Your task to perform on an android device: Go to CNN.com Image 0: 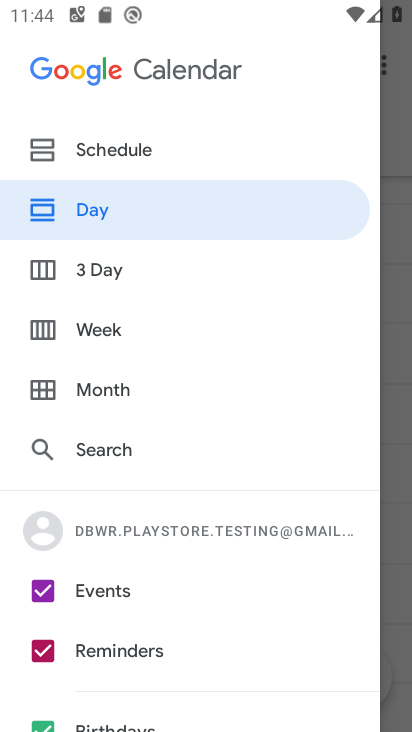
Step 0: press home button
Your task to perform on an android device: Go to CNN.com Image 1: 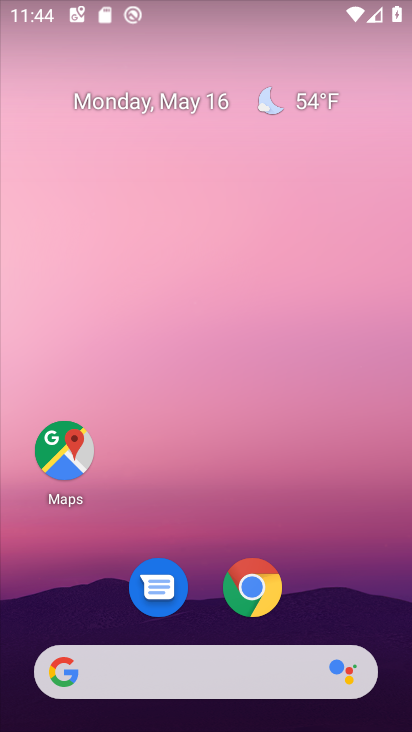
Step 1: click (251, 576)
Your task to perform on an android device: Go to CNN.com Image 2: 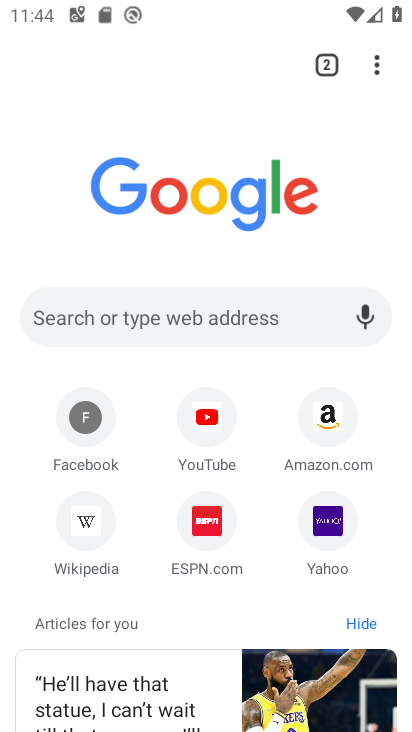
Step 2: click (192, 336)
Your task to perform on an android device: Go to CNN.com Image 3: 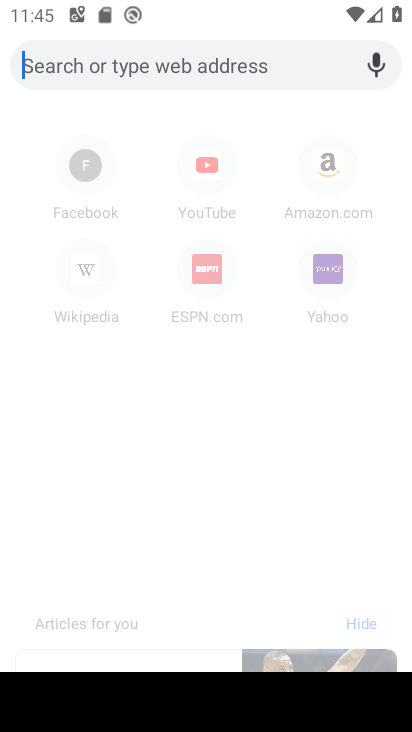
Step 3: type "CNN.com"
Your task to perform on an android device: Go to CNN.com Image 4: 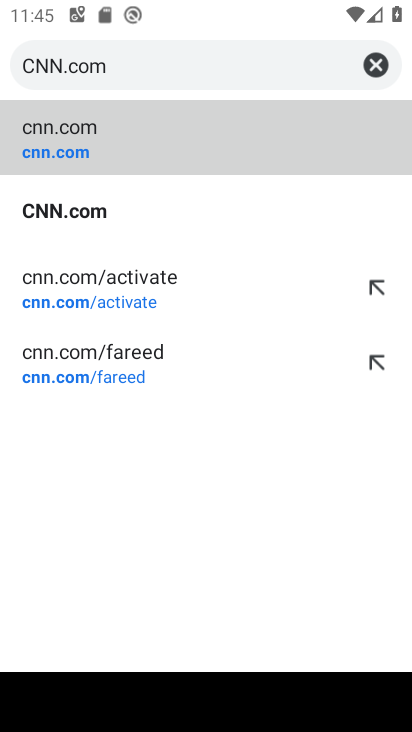
Step 4: click (174, 216)
Your task to perform on an android device: Go to CNN.com Image 5: 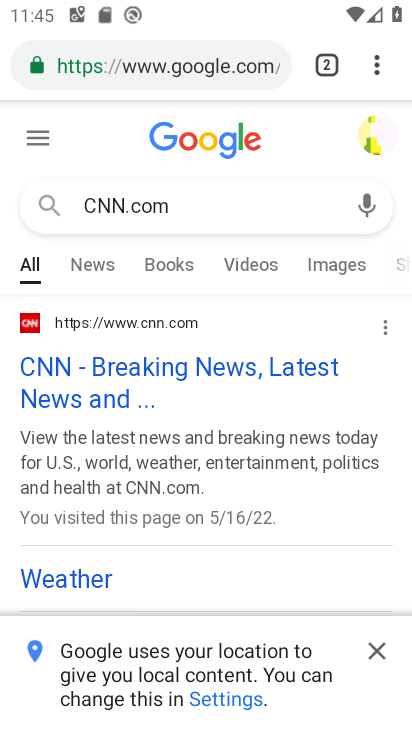
Step 5: click (381, 652)
Your task to perform on an android device: Go to CNN.com Image 6: 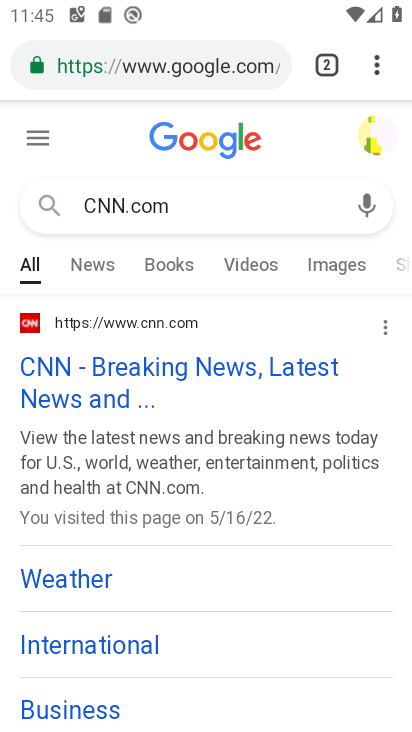
Step 6: task complete